Your task to perform on an android device: When is my next meeting? Image 0: 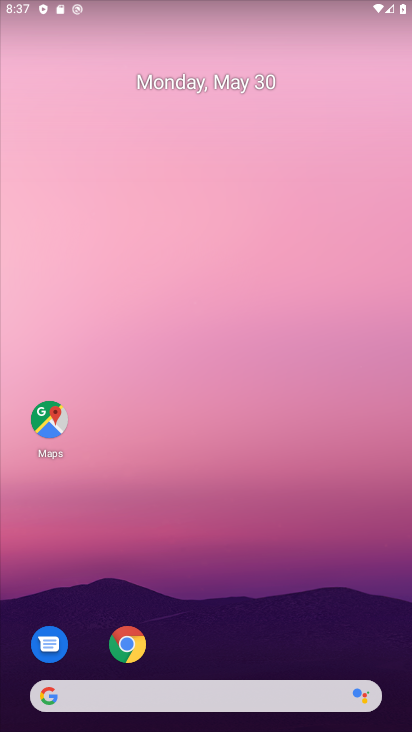
Step 0: drag from (59, 28) to (165, 64)
Your task to perform on an android device: When is my next meeting? Image 1: 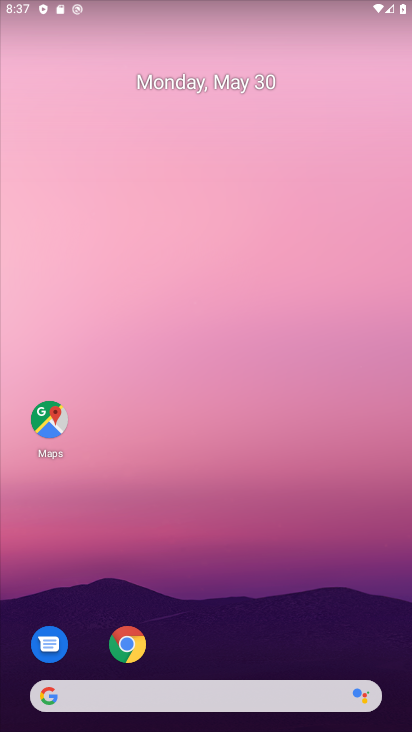
Step 1: drag from (217, 534) to (218, 73)
Your task to perform on an android device: When is my next meeting? Image 2: 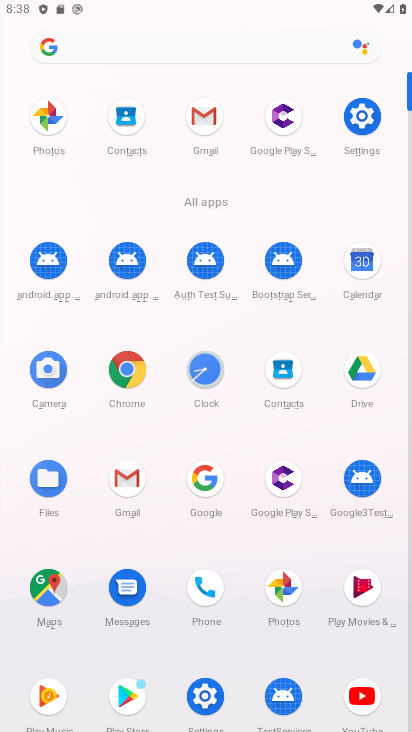
Step 2: click (360, 264)
Your task to perform on an android device: When is my next meeting? Image 3: 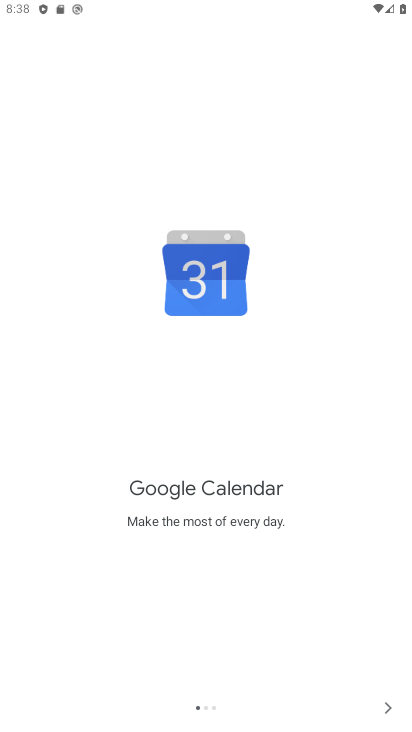
Step 3: click (376, 698)
Your task to perform on an android device: When is my next meeting? Image 4: 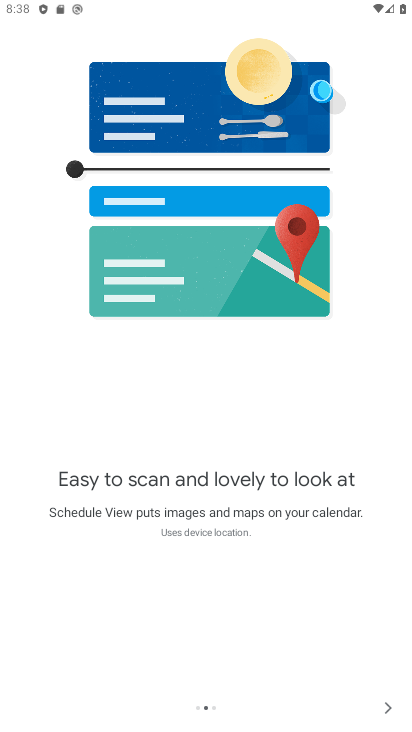
Step 4: click (384, 708)
Your task to perform on an android device: When is my next meeting? Image 5: 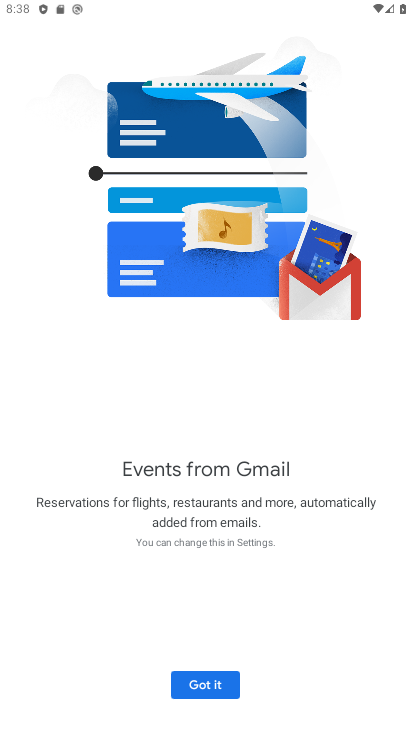
Step 5: click (151, 686)
Your task to perform on an android device: When is my next meeting? Image 6: 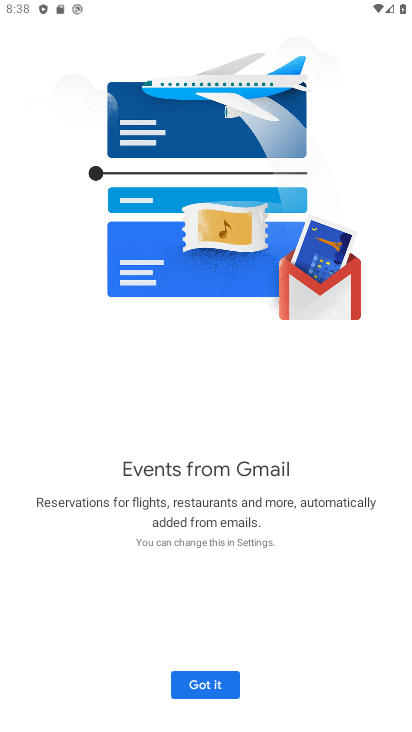
Step 6: click (176, 686)
Your task to perform on an android device: When is my next meeting? Image 7: 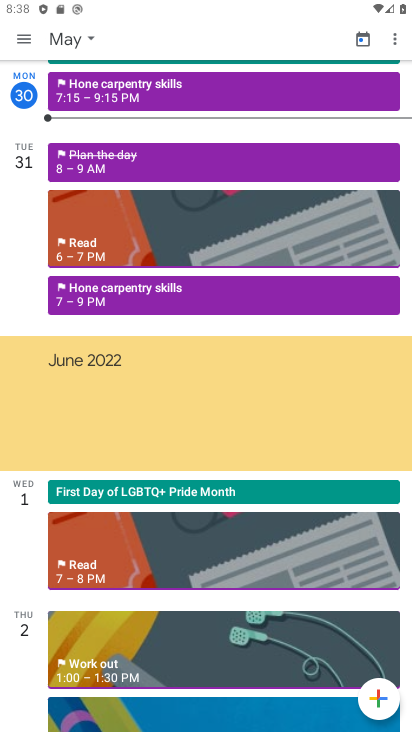
Step 7: drag from (160, 690) to (204, 163)
Your task to perform on an android device: When is my next meeting? Image 8: 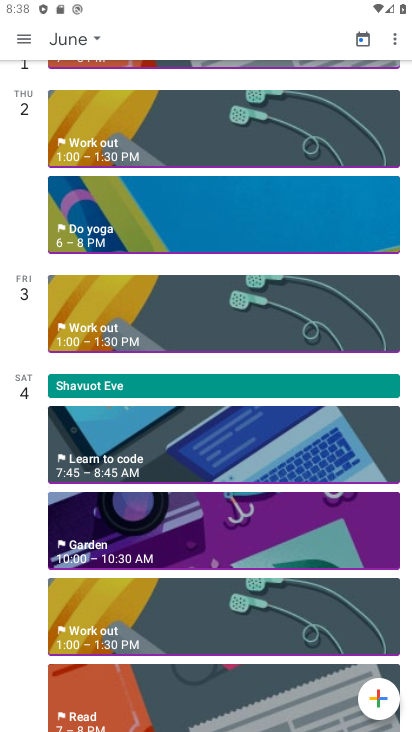
Step 8: drag from (190, 666) to (217, 342)
Your task to perform on an android device: When is my next meeting? Image 9: 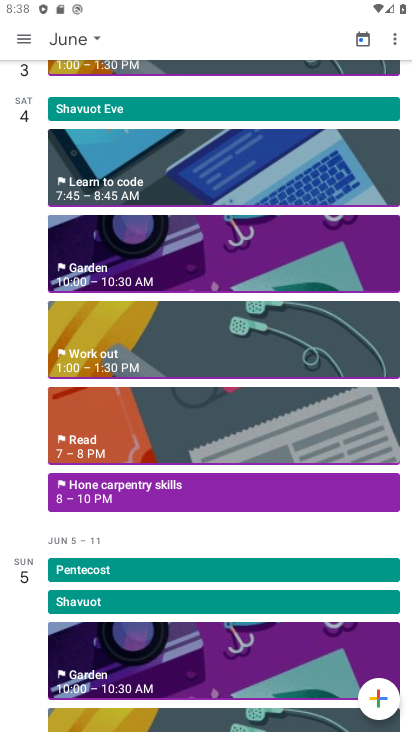
Step 9: click (60, 38)
Your task to perform on an android device: When is my next meeting? Image 10: 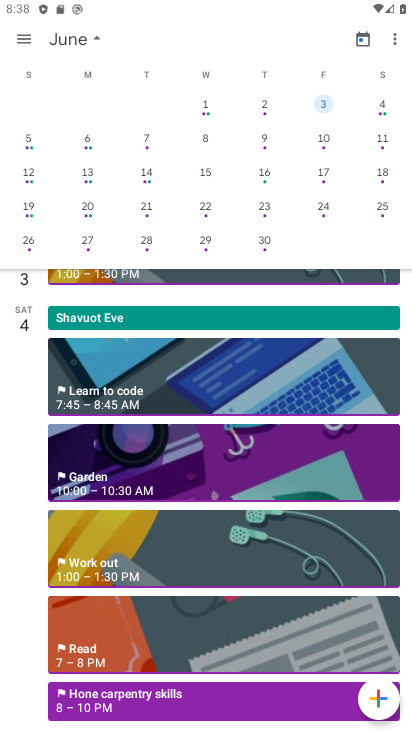
Step 10: drag from (49, 189) to (390, 157)
Your task to perform on an android device: When is my next meeting? Image 11: 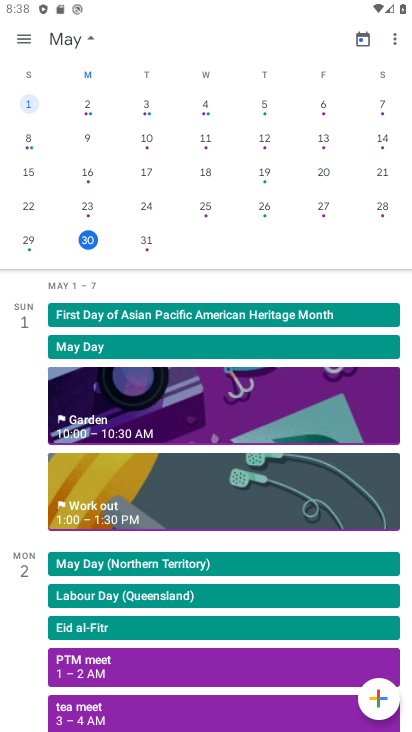
Step 11: drag from (134, 694) to (217, 387)
Your task to perform on an android device: When is my next meeting? Image 12: 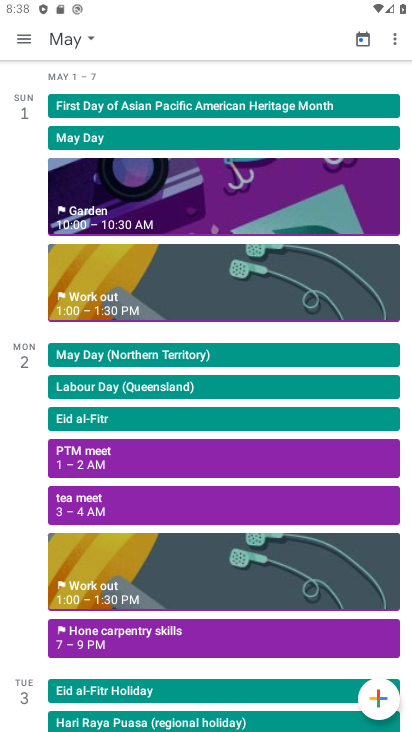
Step 12: click (74, 45)
Your task to perform on an android device: When is my next meeting? Image 13: 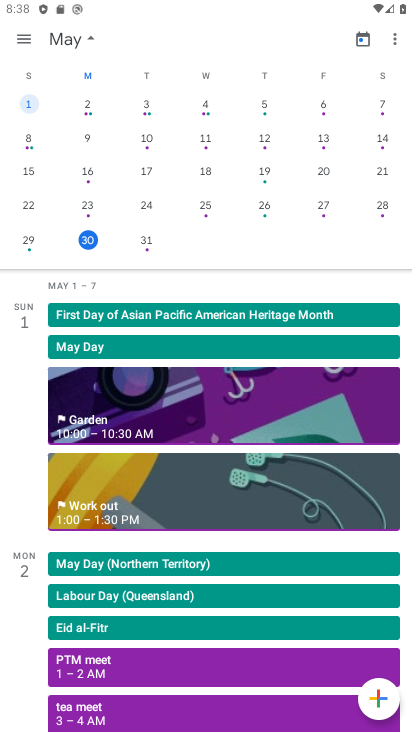
Step 13: click (87, 236)
Your task to perform on an android device: When is my next meeting? Image 14: 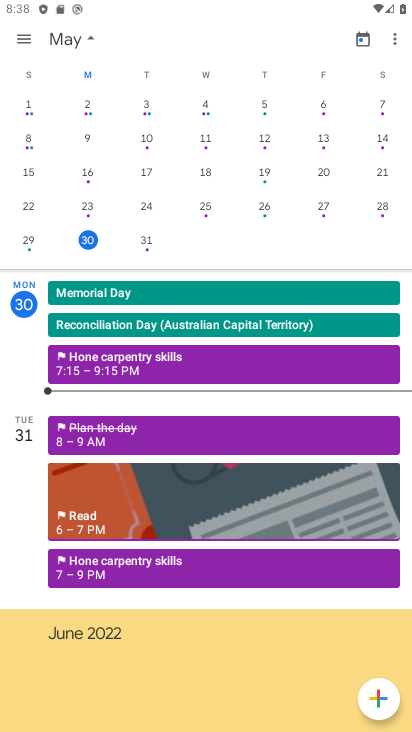
Step 14: drag from (133, 585) to (192, 198)
Your task to perform on an android device: When is my next meeting? Image 15: 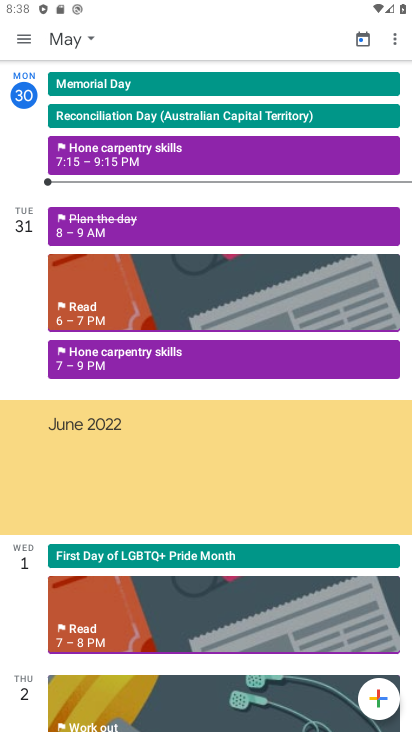
Step 15: drag from (156, 655) to (199, 118)
Your task to perform on an android device: When is my next meeting? Image 16: 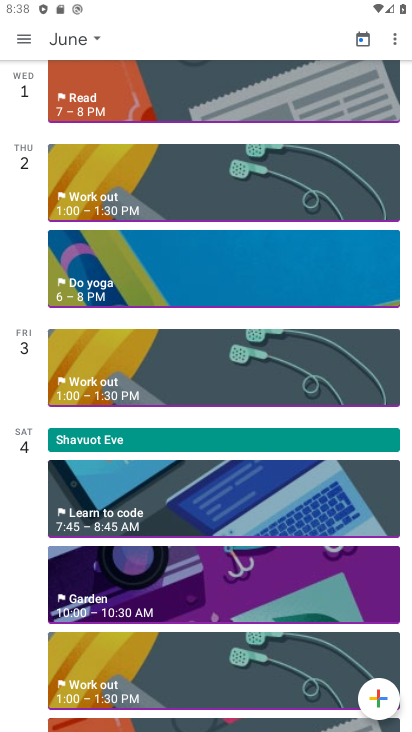
Step 16: drag from (185, 647) to (277, 150)
Your task to perform on an android device: When is my next meeting? Image 17: 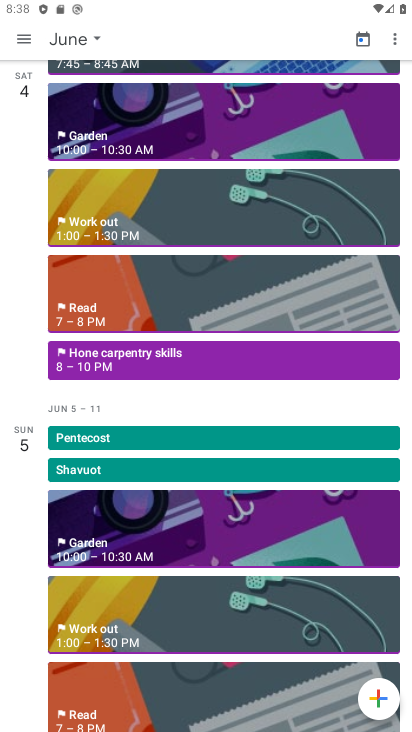
Step 17: drag from (154, 669) to (200, 373)
Your task to perform on an android device: When is my next meeting? Image 18: 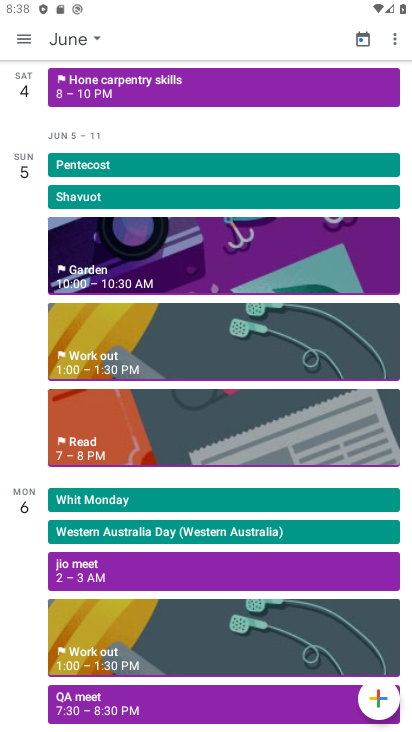
Step 18: click (76, 695)
Your task to perform on an android device: When is my next meeting? Image 19: 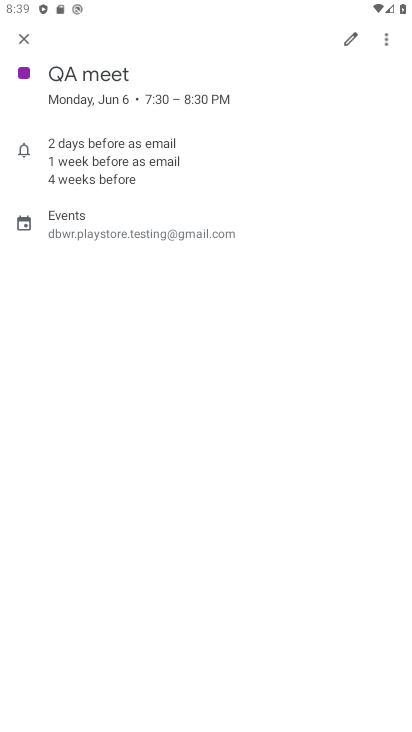
Step 19: task complete